Your task to perform on an android device: What's on my calendar tomorrow? Image 0: 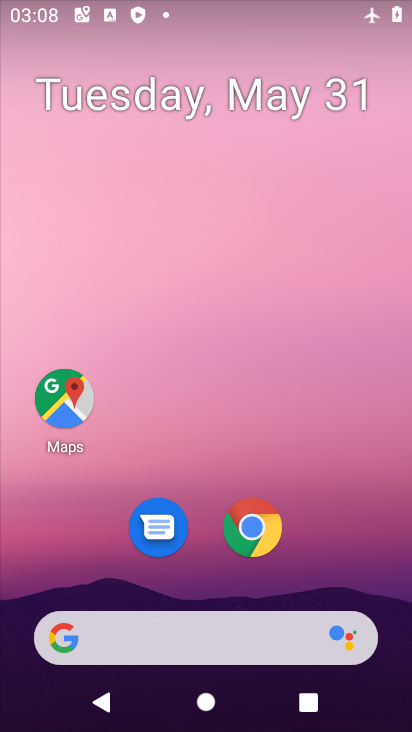
Step 0: drag from (394, 629) to (345, 166)
Your task to perform on an android device: What's on my calendar tomorrow? Image 1: 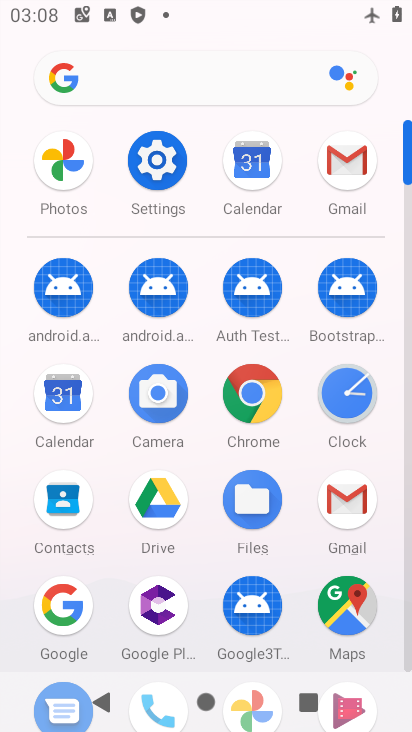
Step 1: click (59, 395)
Your task to perform on an android device: What's on my calendar tomorrow? Image 2: 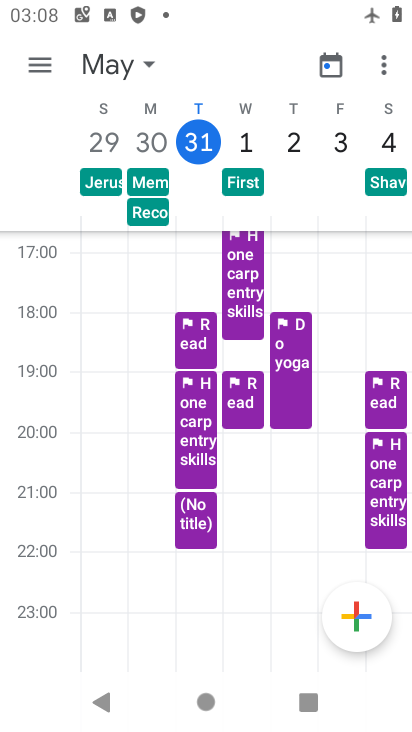
Step 2: click (44, 64)
Your task to perform on an android device: What's on my calendar tomorrow? Image 3: 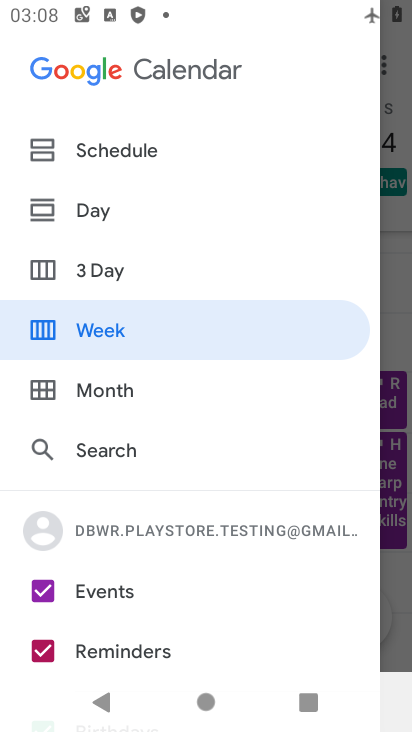
Step 3: click (90, 211)
Your task to perform on an android device: What's on my calendar tomorrow? Image 4: 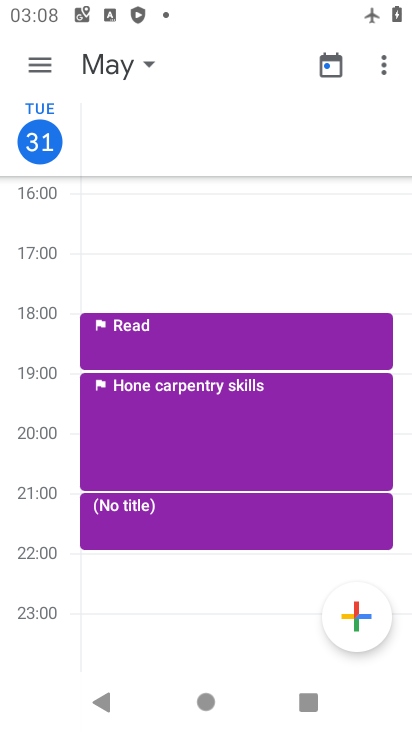
Step 4: click (155, 65)
Your task to perform on an android device: What's on my calendar tomorrow? Image 5: 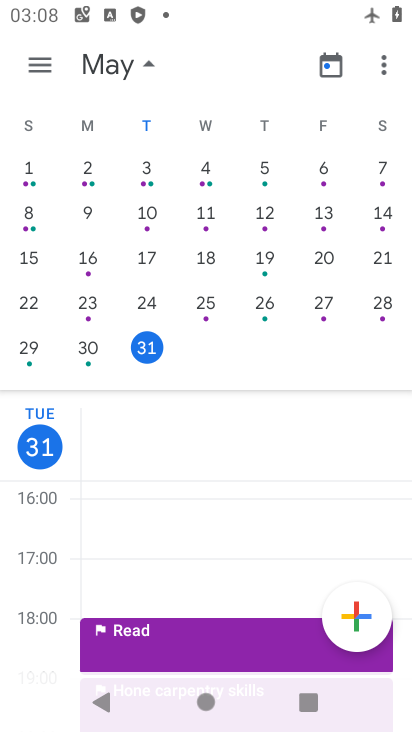
Step 5: drag from (379, 302) to (38, 248)
Your task to perform on an android device: What's on my calendar tomorrow? Image 6: 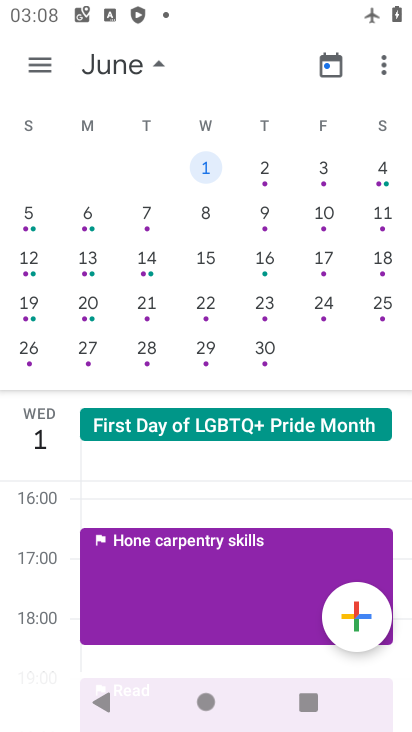
Step 6: click (207, 164)
Your task to perform on an android device: What's on my calendar tomorrow? Image 7: 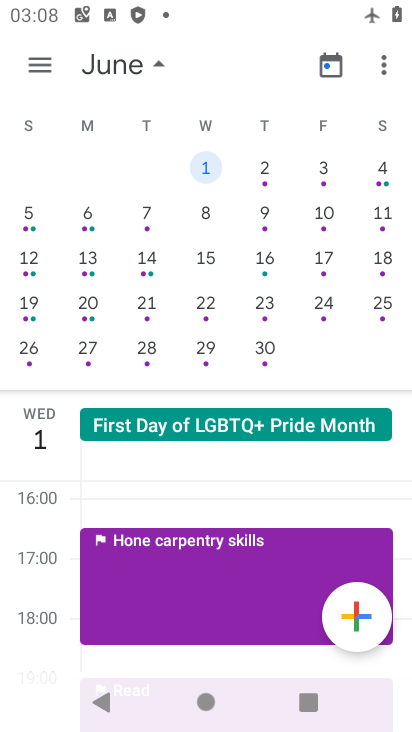
Step 7: task complete